Your task to perform on an android device: Open the calendar and show me this week's events? Image 0: 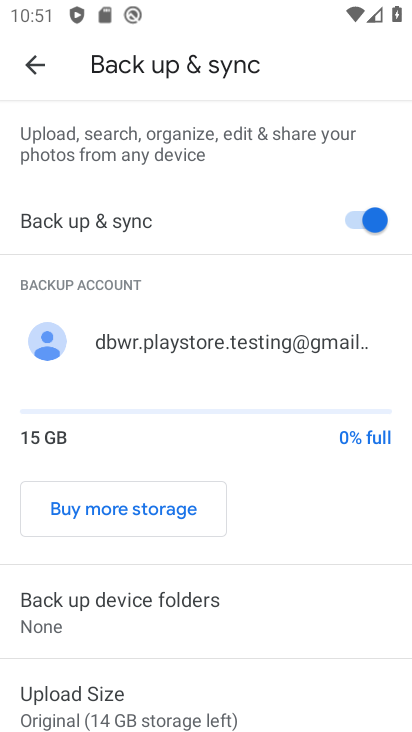
Step 0: press back button
Your task to perform on an android device: Open the calendar and show me this week's events? Image 1: 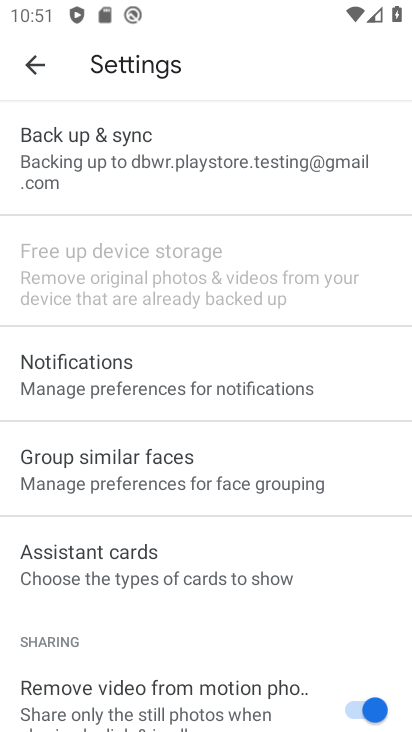
Step 1: press back button
Your task to perform on an android device: Open the calendar and show me this week's events? Image 2: 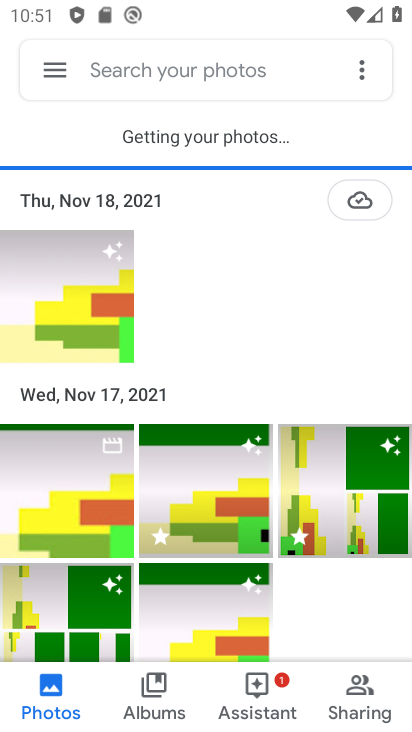
Step 2: press back button
Your task to perform on an android device: Open the calendar and show me this week's events? Image 3: 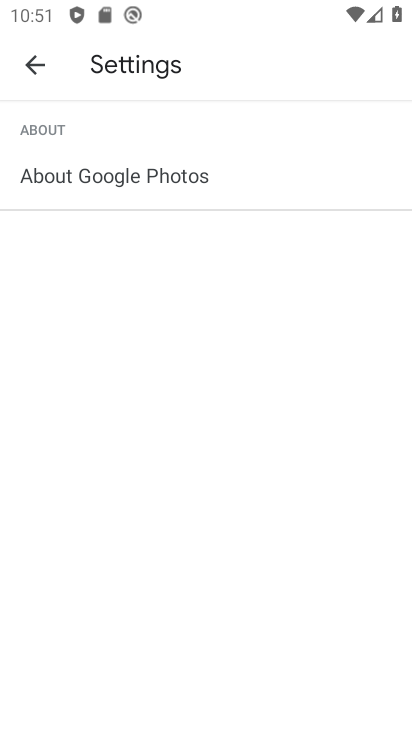
Step 3: press back button
Your task to perform on an android device: Open the calendar and show me this week's events? Image 4: 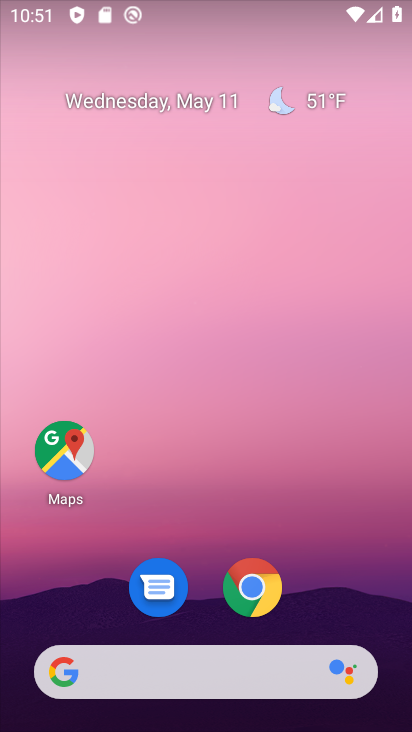
Step 4: drag from (161, 602) to (308, 13)
Your task to perform on an android device: Open the calendar and show me this week's events? Image 5: 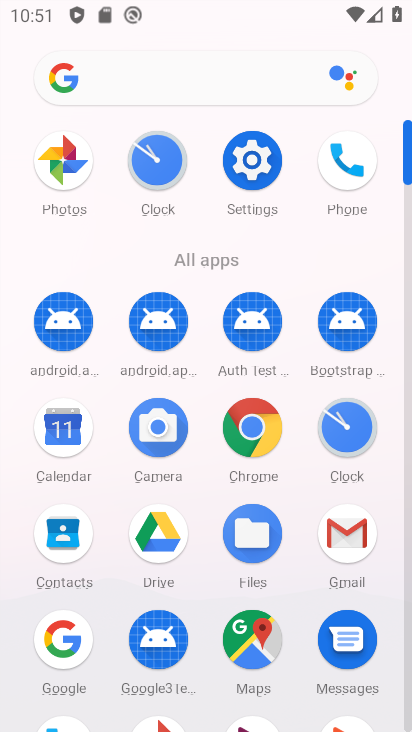
Step 5: click (59, 427)
Your task to perform on an android device: Open the calendar and show me this week's events? Image 6: 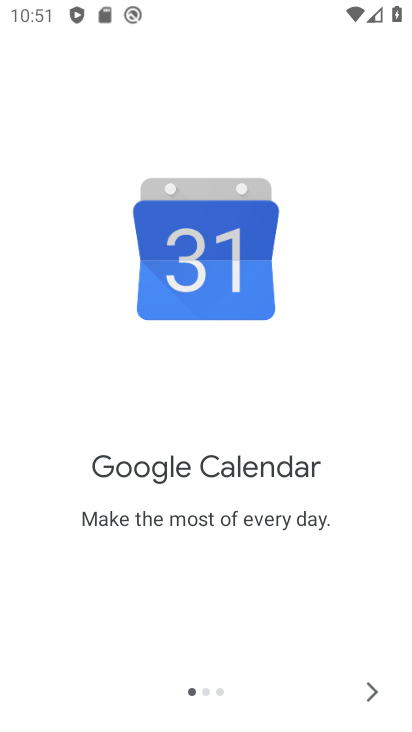
Step 6: click (364, 696)
Your task to perform on an android device: Open the calendar and show me this week's events? Image 7: 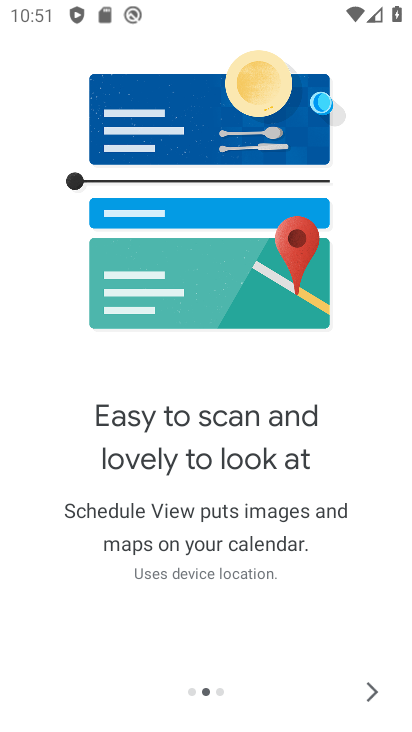
Step 7: click (364, 696)
Your task to perform on an android device: Open the calendar and show me this week's events? Image 8: 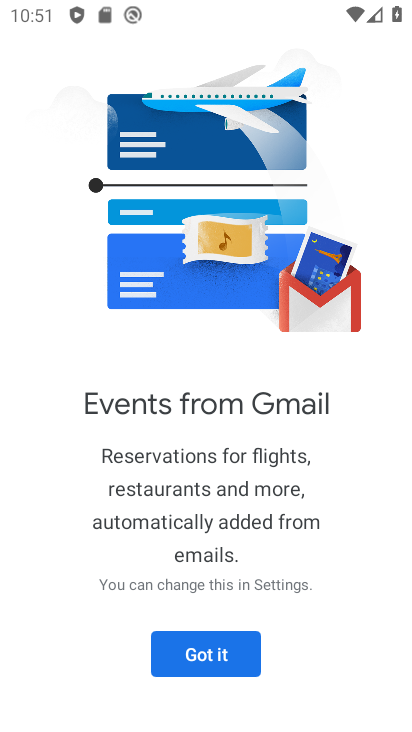
Step 8: click (193, 650)
Your task to perform on an android device: Open the calendar and show me this week's events? Image 9: 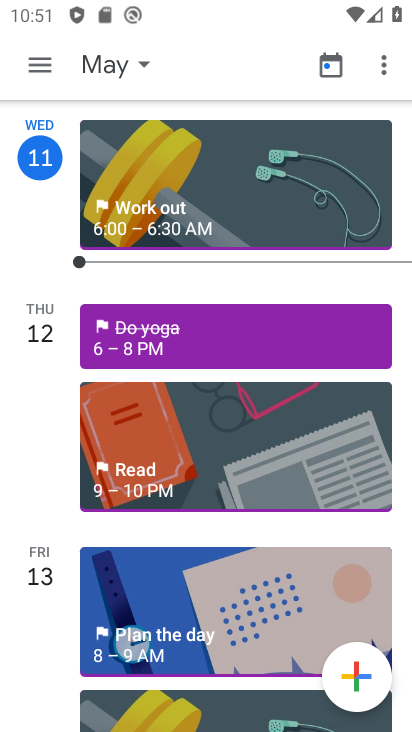
Step 9: click (129, 68)
Your task to perform on an android device: Open the calendar and show me this week's events? Image 10: 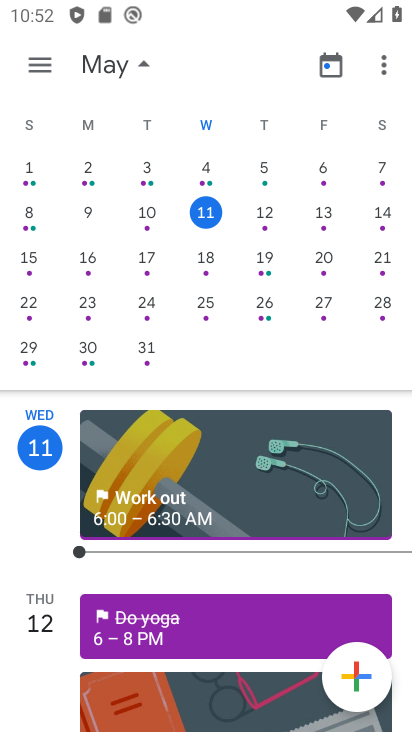
Step 10: drag from (175, 603) to (266, 34)
Your task to perform on an android device: Open the calendar and show me this week's events? Image 11: 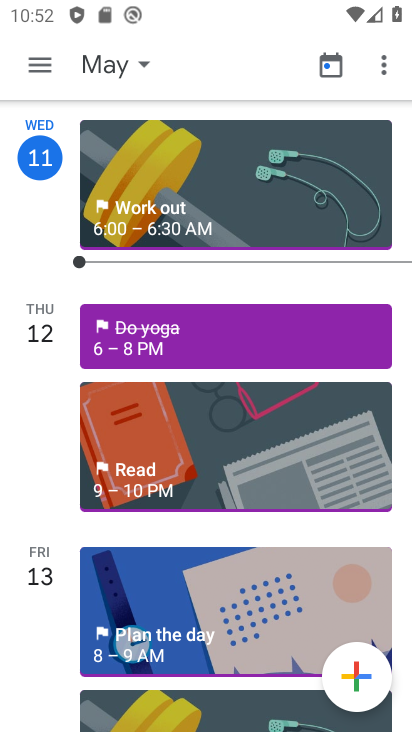
Step 11: drag from (207, 534) to (295, 51)
Your task to perform on an android device: Open the calendar and show me this week's events? Image 12: 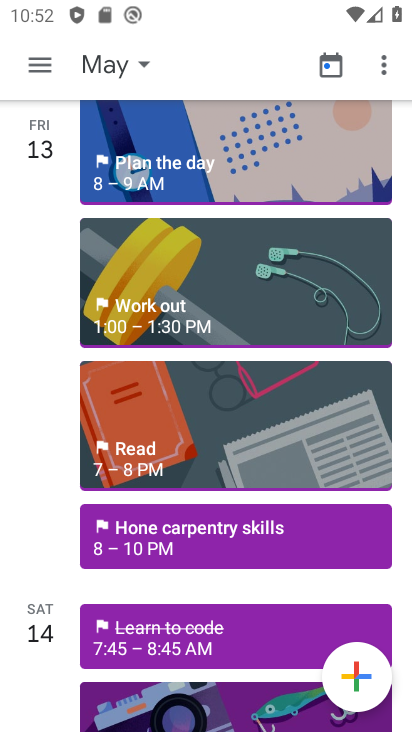
Step 12: click (187, 255)
Your task to perform on an android device: Open the calendar and show me this week's events? Image 13: 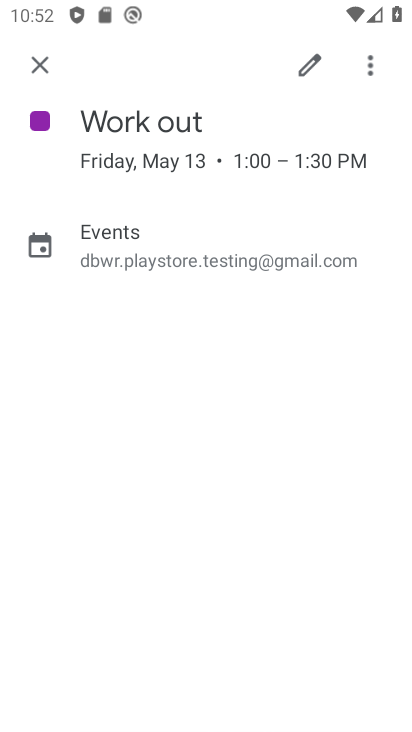
Step 13: task complete